Your task to perform on an android device: Go to wifi settings Image 0: 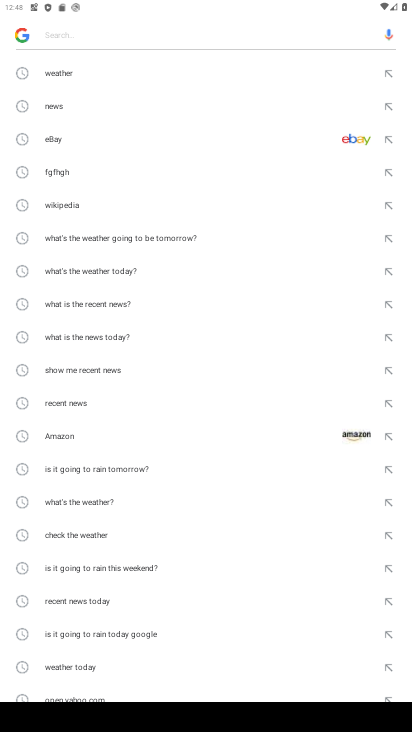
Step 0: drag from (199, 1) to (195, 454)
Your task to perform on an android device: Go to wifi settings Image 1: 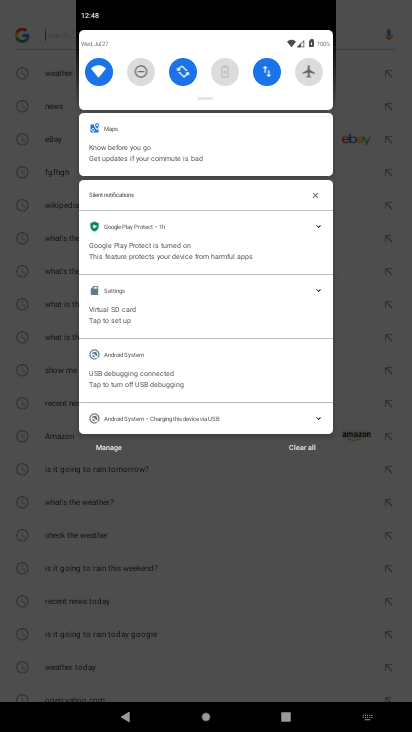
Step 1: click (99, 71)
Your task to perform on an android device: Go to wifi settings Image 2: 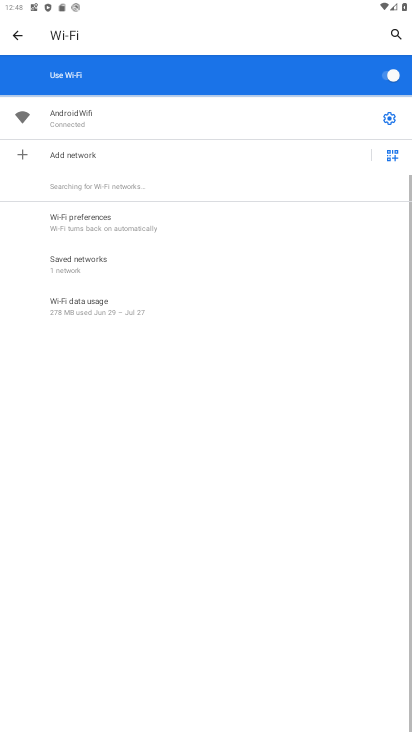
Step 2: click (388, 116)
Your task to perform on an android device: Go to wifi settings Image 3: 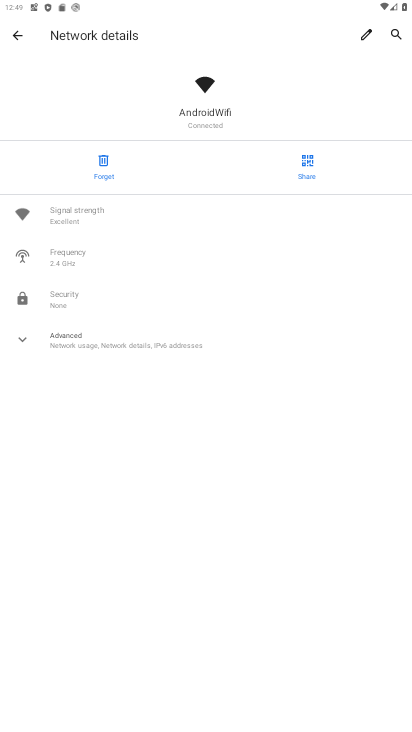
Step 3: task complete